Your task to perform on an android device: Open my contact list Image 0: 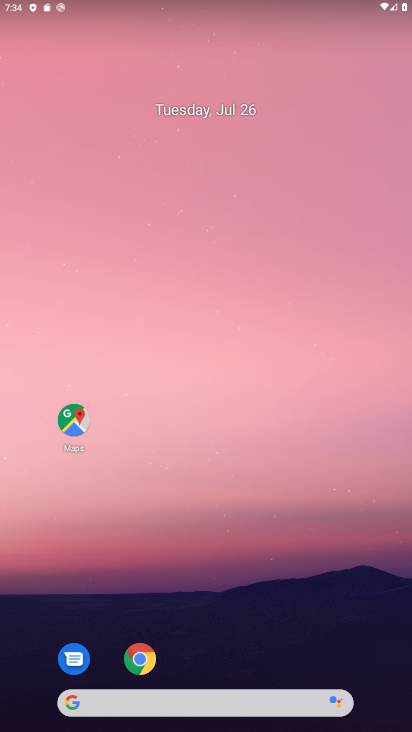
Step 0: drag from (212, 456) to (201, 227)
Your task to perform on an android device: Open my contact list Image 1: 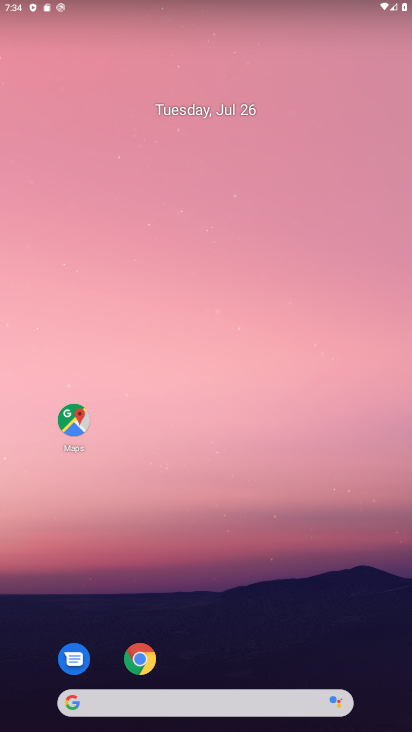
Step 1: drag from (190, 559) to (313, 19)
Your task to perform on an android device: Open my contact list Image 2: 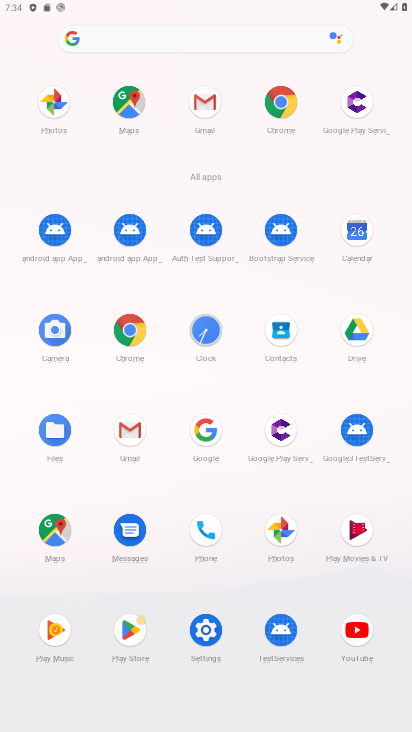
Step 2: click (272, 313)
Your task to perform on an android device: Open my contact list Image 3: 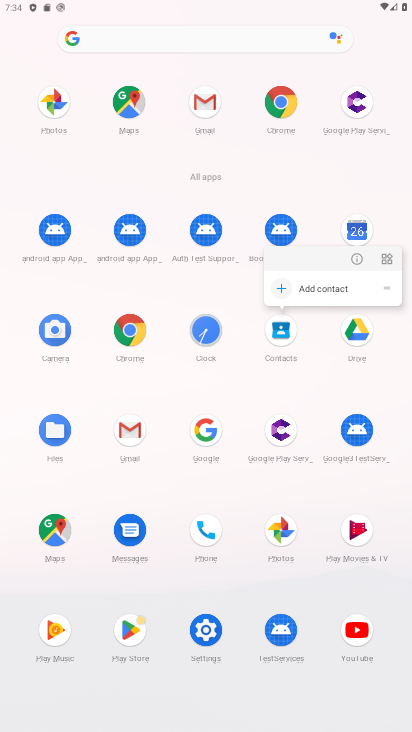
Step 3: click (354, 254)
Your task to perform on an android device: Open my contact list Image 4: 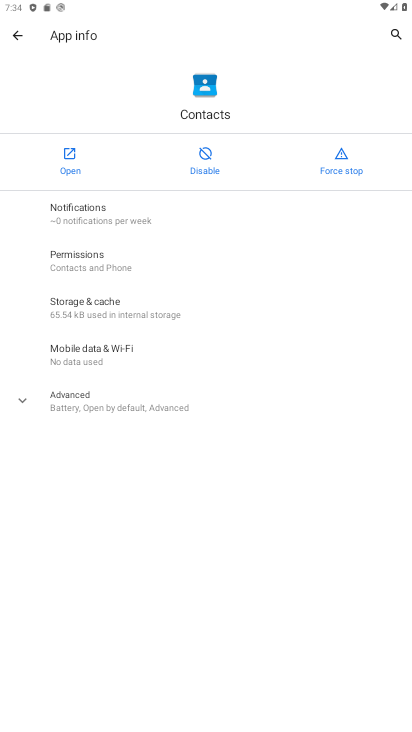
Step 4: click (71, 157)
Your task to perform on an android device: Open my contact list Image 5: 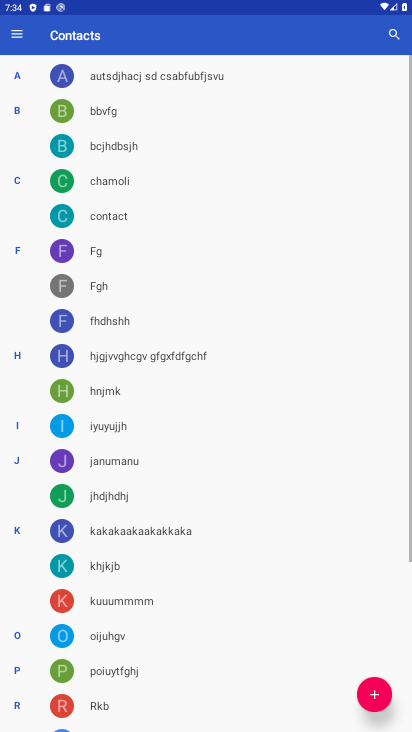
Step 5: task complete